Your task to perform on an android device: Search for coffee table on Crate & Barrel Image 0: 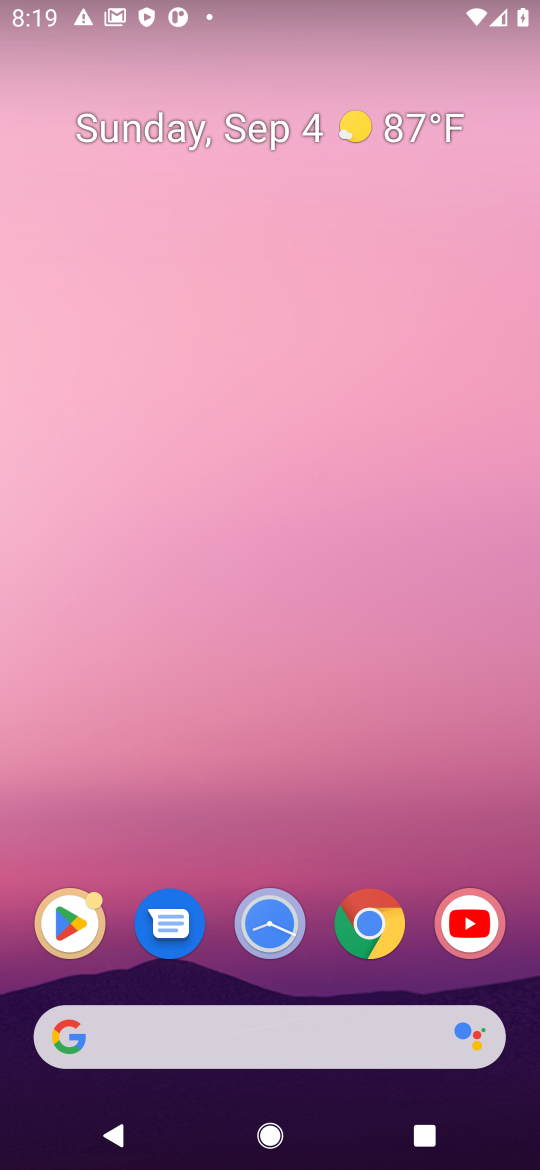
Step 0: press home button
Your task to perform on an android device: Search for coffee table on Crate & Barrel Image 1: 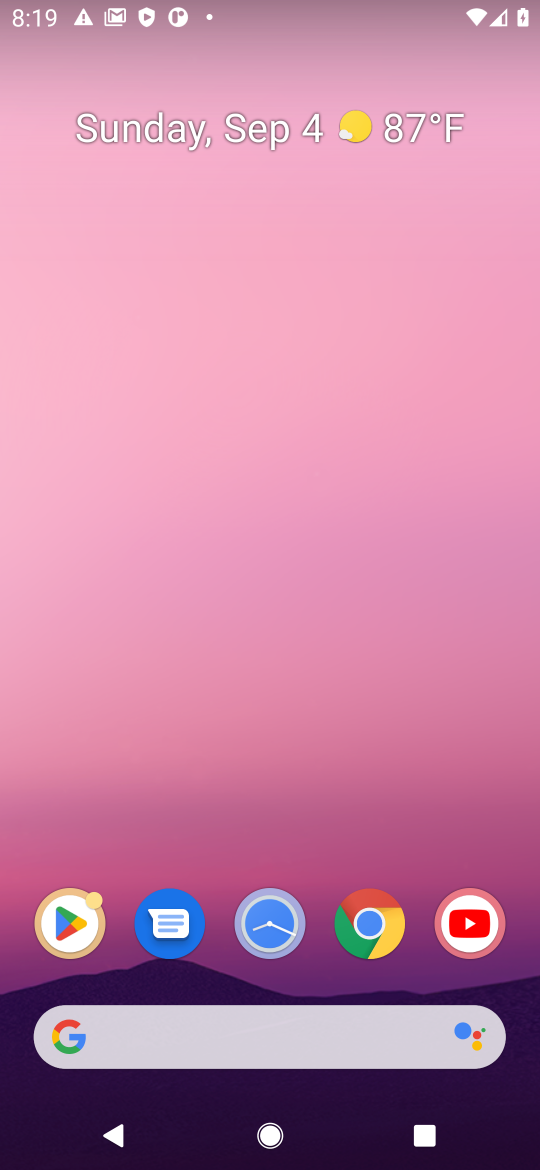
Step 1: click (395, 1045)
Your task to perform on an android device: Search for coffee table on Crate & Barrel Image 2: 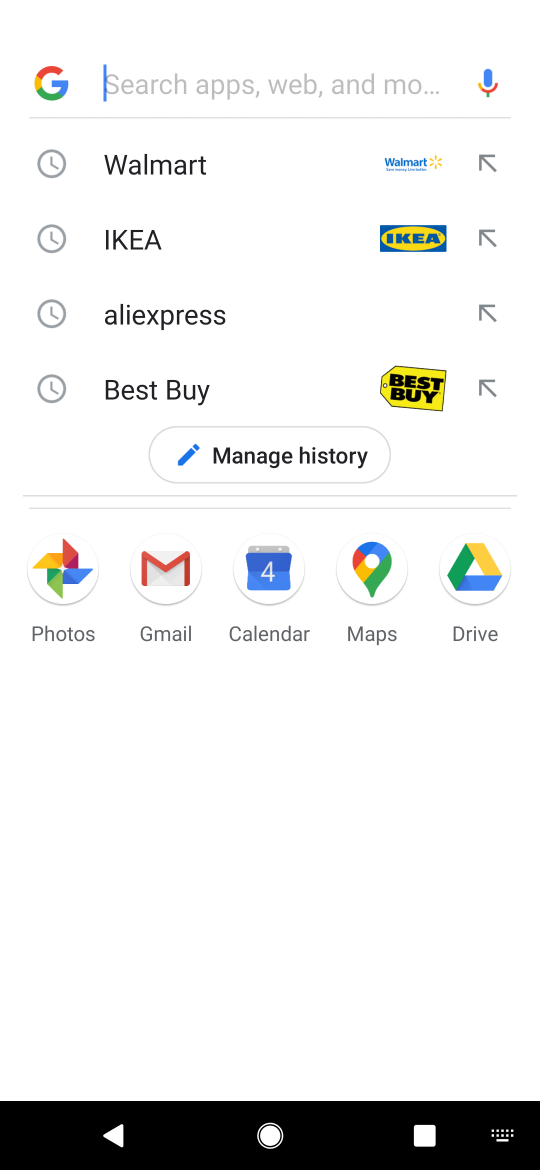
Step 2: press enter
Your task to perform on an android device: Search for coffee table on Crate & Barrel Image 3: 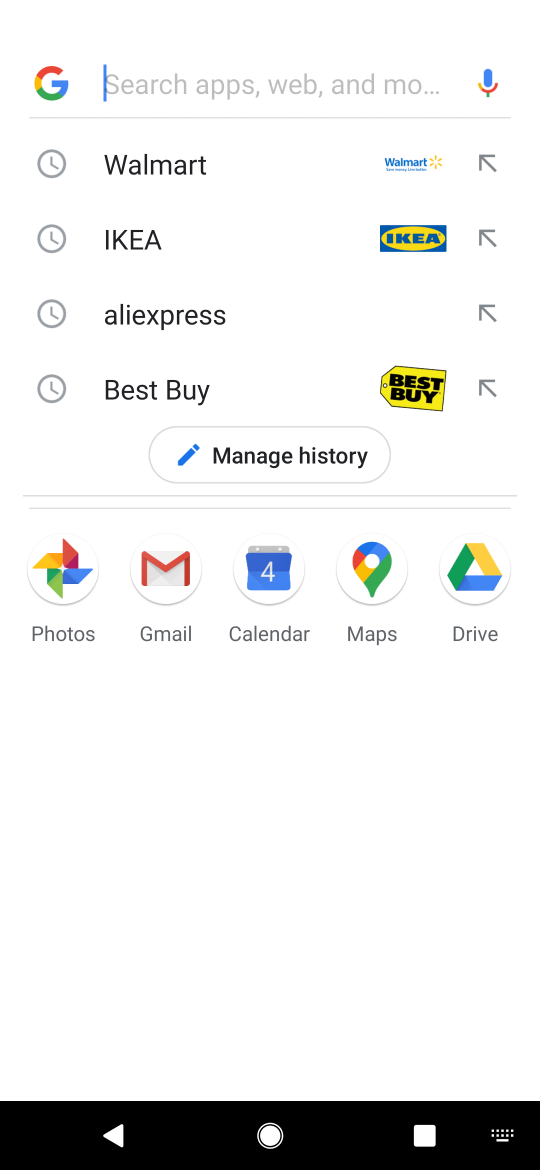
Step 3: type "crate barrel"
Your task to perform on an android device: Search for coffee table on Crate & Barrel Image 4: 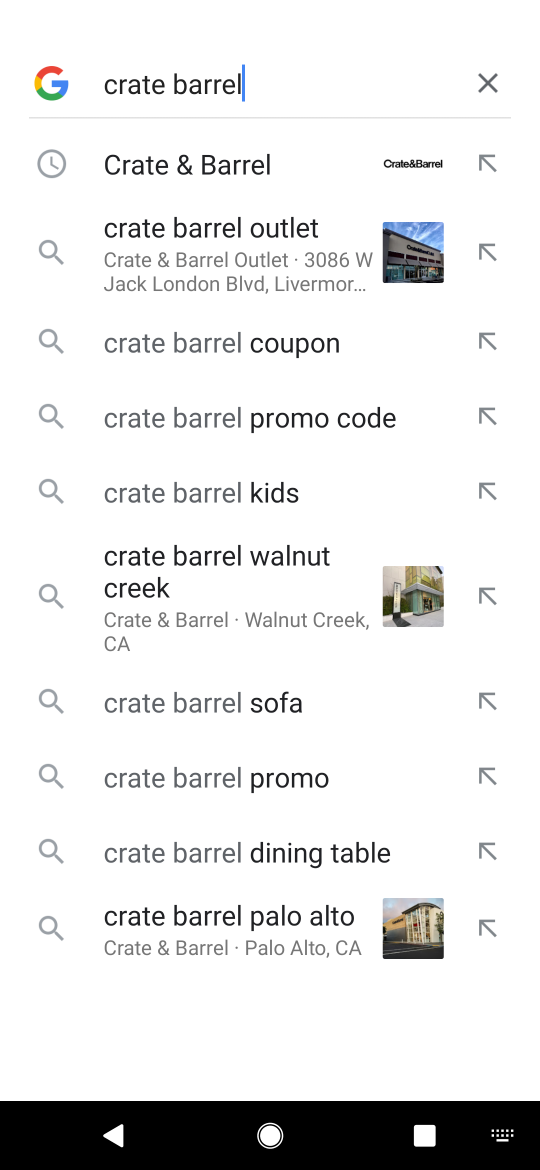
Step 4: click (242, 168)
Your task to perform on an android device: Search for coffee table on Crate & Barrel Image 5: 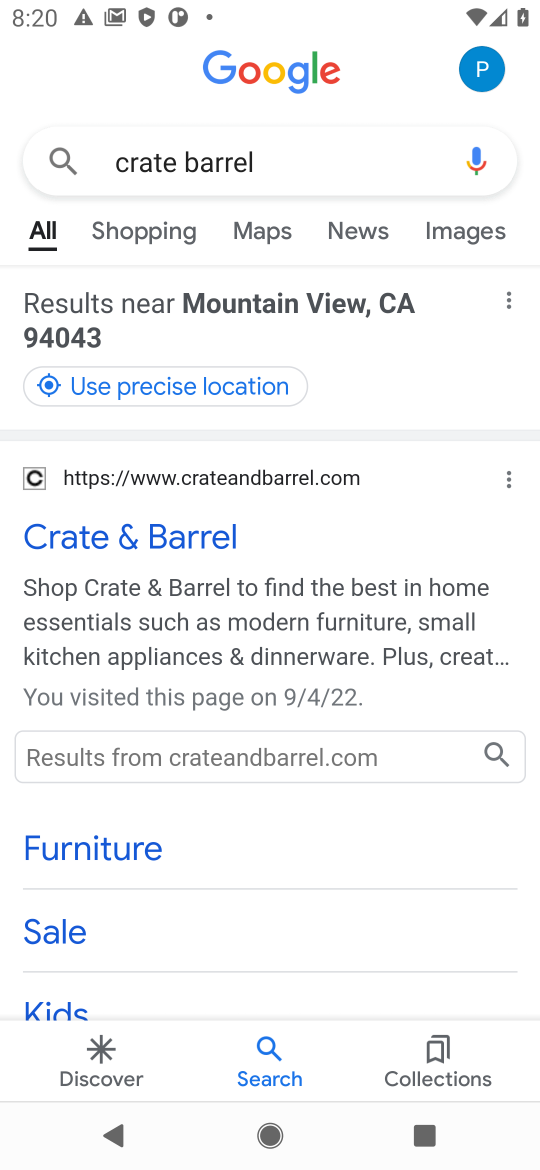
Step 5: click (179, 533)
Your task to perform on an android device: Search for coffee table on Crate & Barrel Image 6: 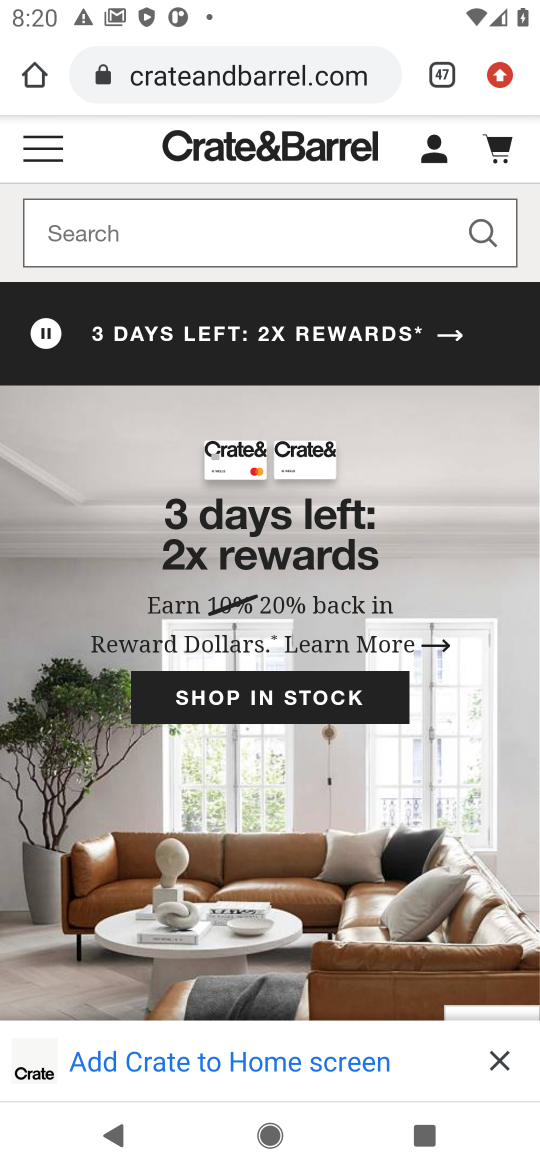
Step 6: click (186, 225)
Your task to perform on an android device: Search for coffee table on Crate & Barrel Image 7: 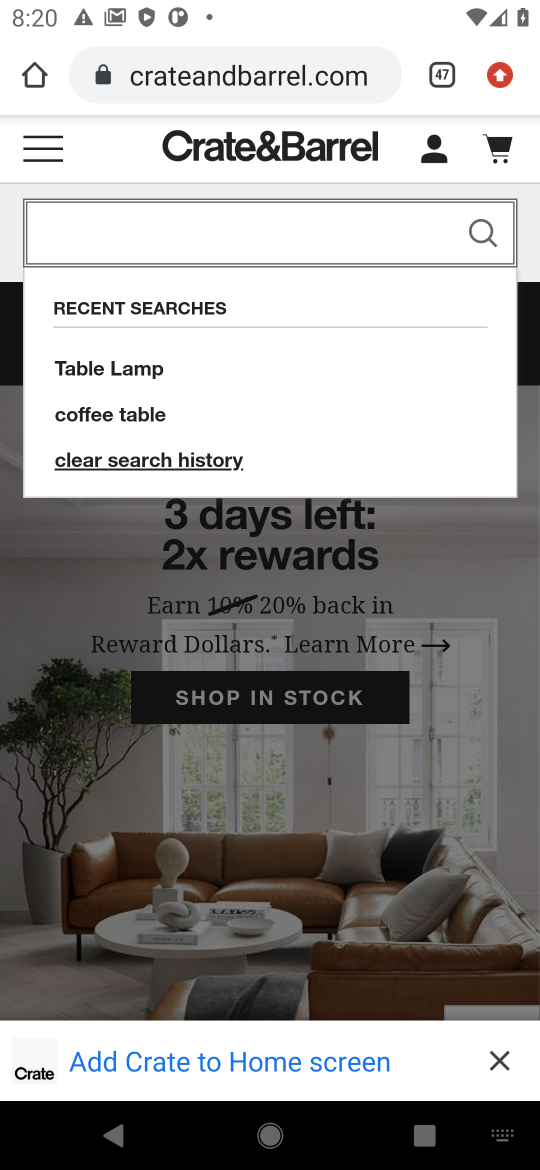
Step 7: type "coffe table"
Your task to perform on an android device: Search for coffee table on Crate & Barrel Image 8: 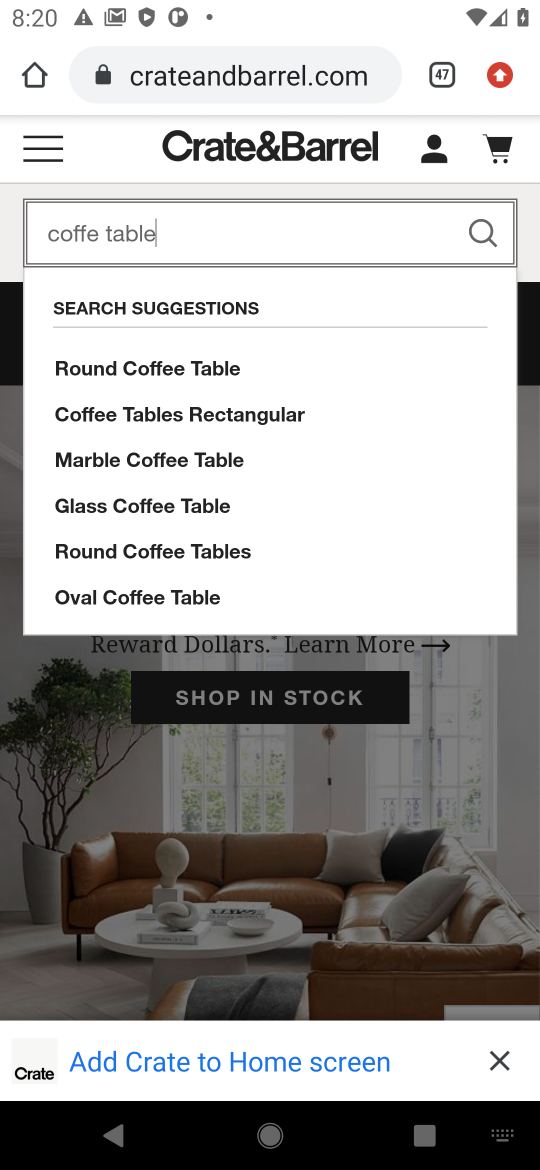
Step 8: click (481, 225)
Your task to perform on an android device: Search for coffee table on Crate & Barrel Image 9: 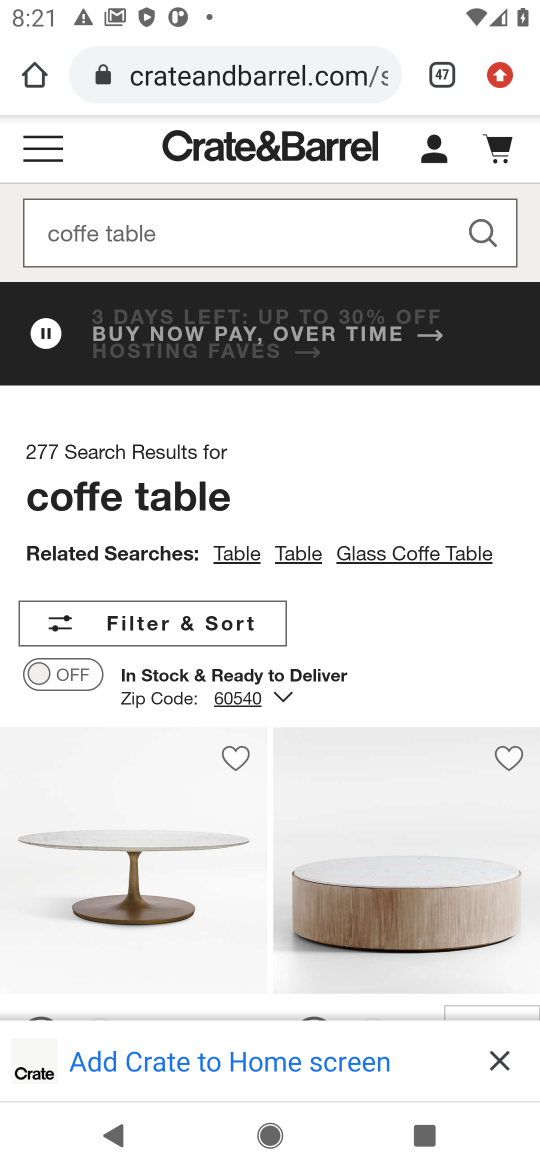
Step 9: task complete